Your task to perform on an android device: see creations saved in the google photos Image 0: 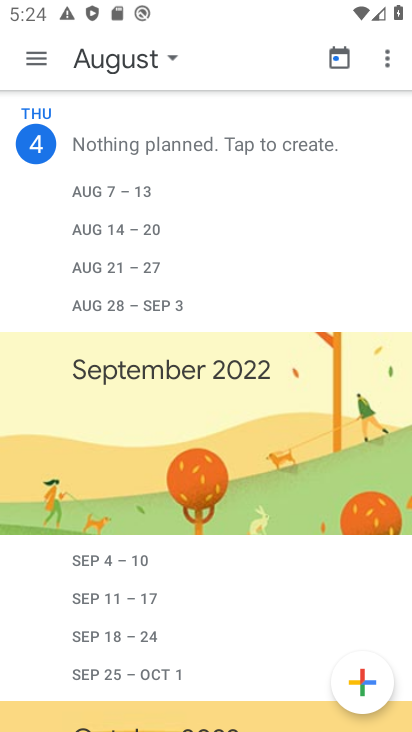
Step 0: press back button
Your task to perform on an android device: see creations saved in the google photos Image 1: 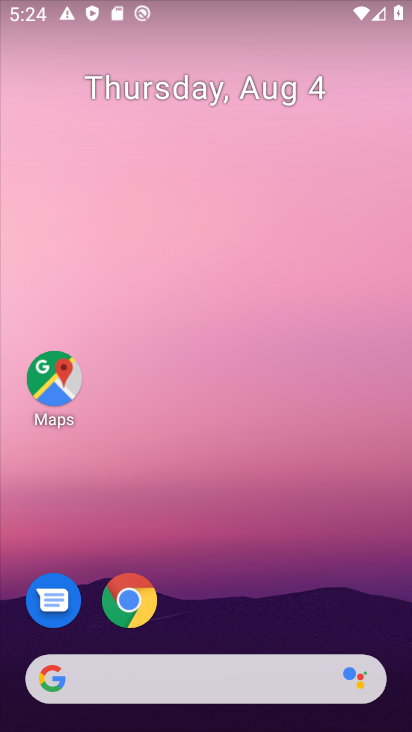
Step 1: drag from (201, 615) to (251, 74)
Your task to perform on an android device: see creations saved in the google photos Image 2: 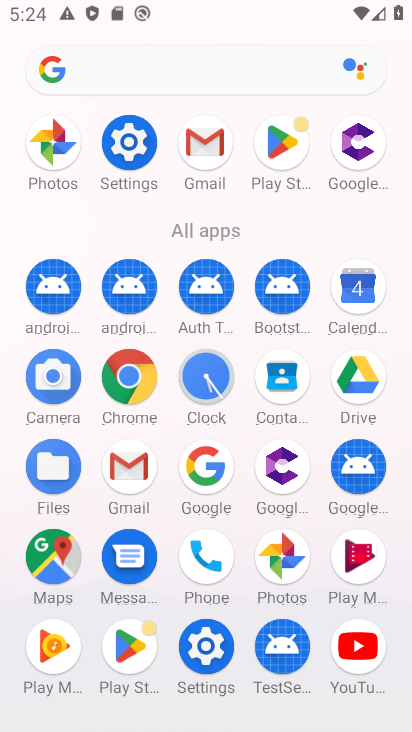
Step 2: click (276, 563)
Your task to perform on an android device: see creations saved in the google photos Image 3: 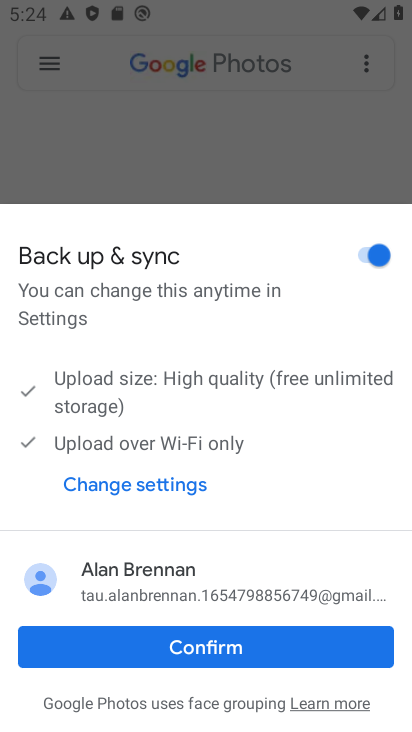
Step 3: click (199, 657)
Your task to perform on an android device: see creations saved in the google photos Image 4: 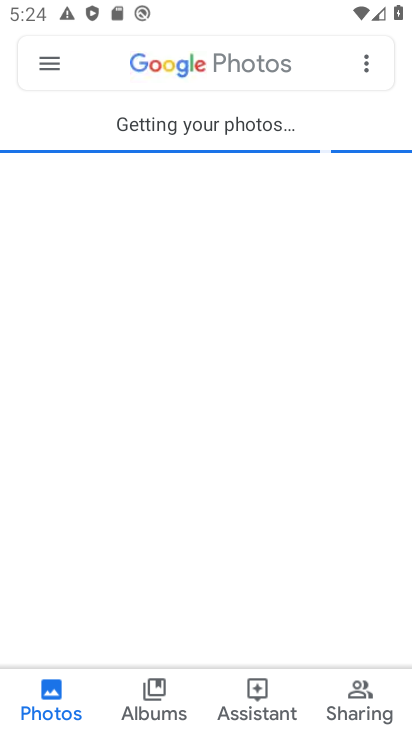
Step 4: click (45, 55)
Your task to perform on an android device: see creations saved in the google photos Image 5: 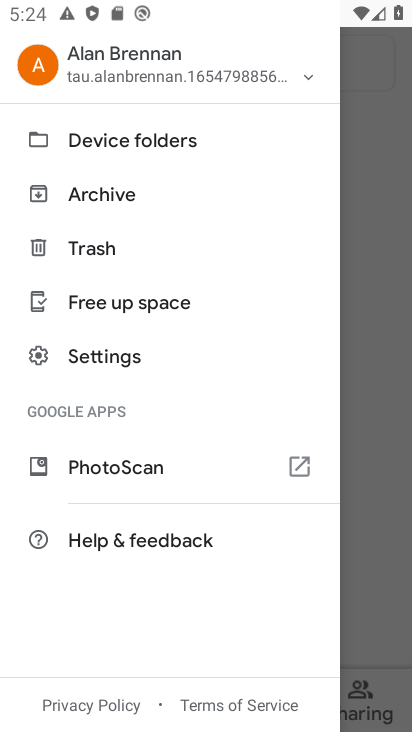
Step 5: click (89, 198)
Your task to perform on an android device: see creations saved in the google photos Image 6: 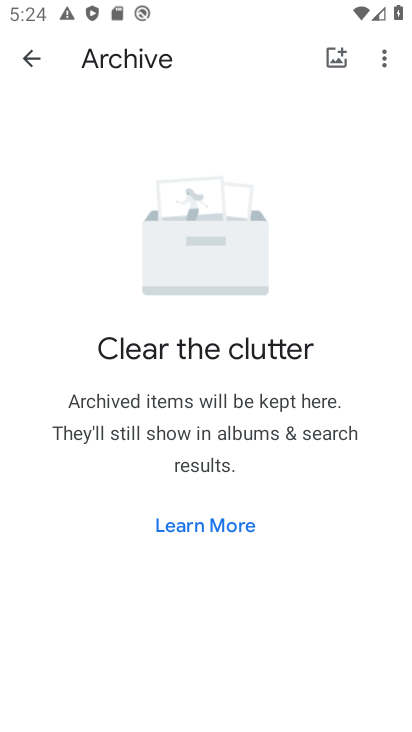
Step 6: task complete